Your task to perform on an android device: Show the shopping cart on walmart. Search for "apple airpods" on walmart, select the first entry, add it to the cart, then select checkout. Image 0: 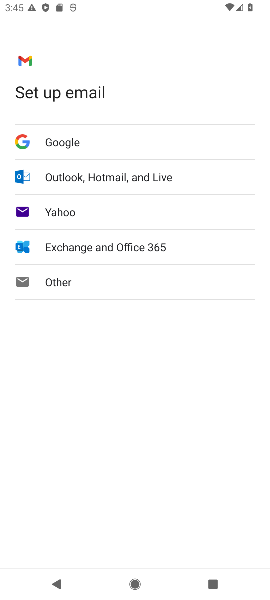
Step 0: press home button
Your task to perform on an android device: Show the shopping cart on walmart. Search for "apple airpods" on walmart, select the first entry, add it to the cart, then select checkout. Image 1: 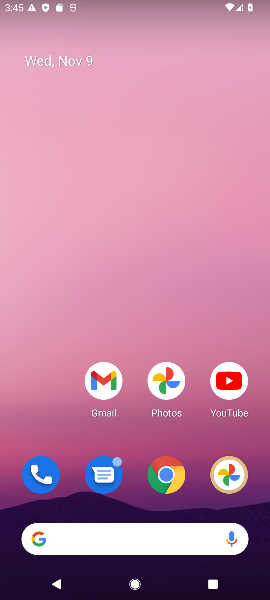
Step 1: drag from (88, 492) to (75, 96)
Your task to perform on an android device: Show the shopping cart on walmart. Search for "apple airpods" on walmart, select the first entry, add it to the cart, then select checkout. Image 2: 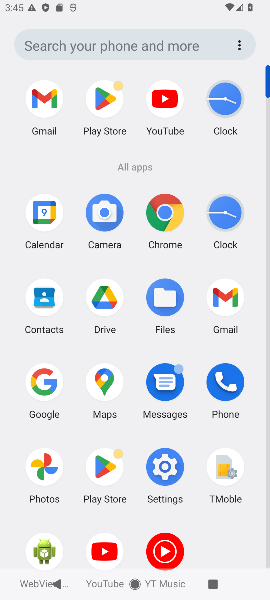
Step 2: click (158, 214)
Your task to perform on an android device: Show the shopping cart on walmart. Search for "apple airpods" on walmart, select the first entry, add it to the cart, then select checkout. Image 3: 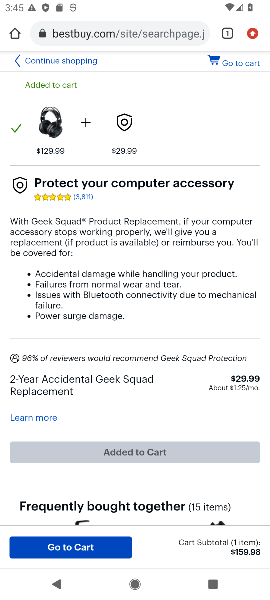
Step 3: click (121, 43)
Your task to perform on an android device: Show the shopping cart on walmart. Search for "apple airpods" on walmart, select the first entry, add it to the cart, then select checkout. Image 4: 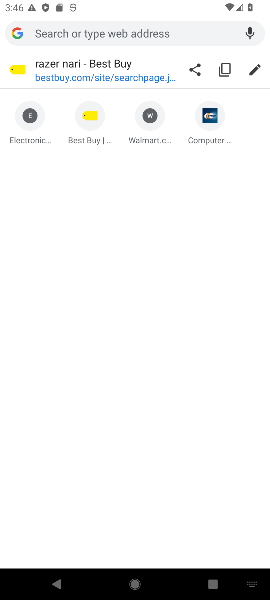
Step 4: type "walmart"
Your task to perform on an android device: Show the shopping cart on walmart. Search for "apple airpods" on walmart, select the first entry, add it to the cart, then select checkout. Image 5: 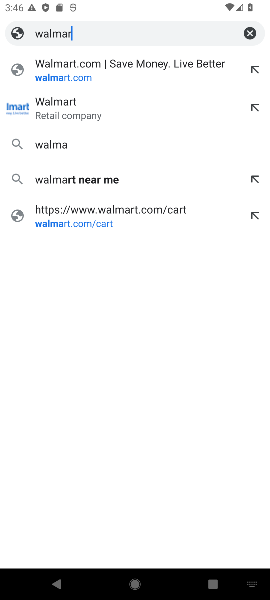
Step 5: press enter
Your task to perform on an android device: Show the shopping cart on walmart. Search for "apple airpods" on walmart, select the first entry, add it to the cart, then select checkout. Image 6: 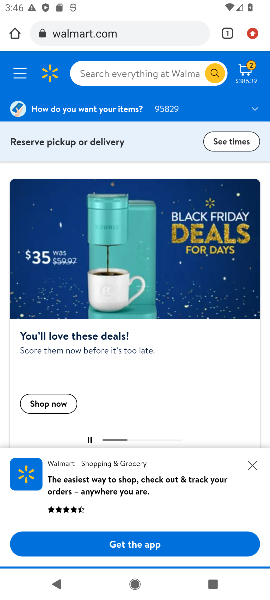
Step 6: click (247, 69)
Your task to perform on an android device: Show the shopping cart on walmart. Search for "apple airpods" on walmart, select the first entry, add it to the cart, then select checkout. Image 7: 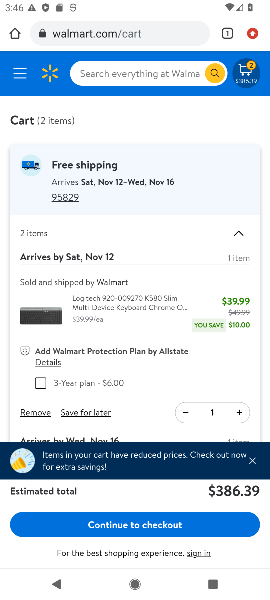
Step 7: click (126, 72)
Your task to perform on an android device: Show the shopping cart on walmart. Search for "apple airpods" on walmart, select the first entry, add it to the cart, then select checkout. Image 8: 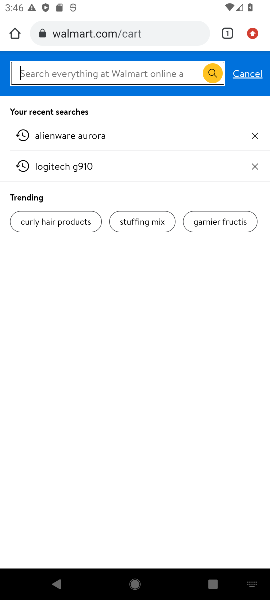
Step 8: type "apple airpods"
Your task to perform on an android device: Show the shopping cart on walmart. Search for "apple airpods" on walmart, select the first entry, add it to the cart, then select checkout. Image 9: 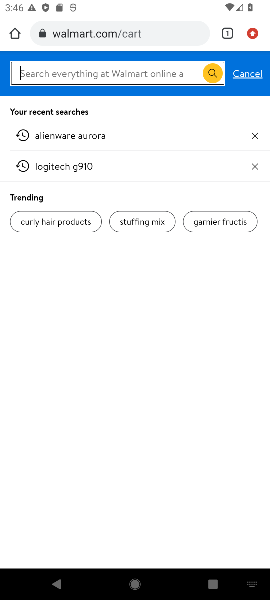
Step 9: press enter
Your task to perform on an android device: Show the shopping cart on walmart. Search for "apple airpods" on walmart, select the first entry, add it to the cart, then select checkout. Image 10: 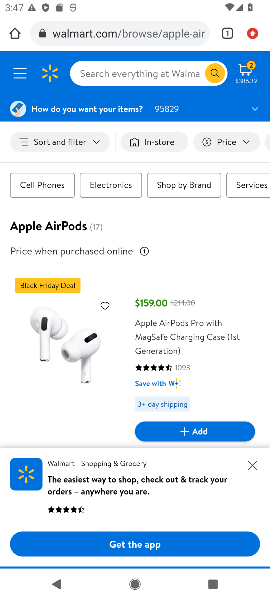
Step 10: click (206, 433)
Your task to perform on an android device: Show the shopping cart on walmart. Search for "apple airpods" on walmart, select the first entry, add it to the cart, then select checkout. Image 11: 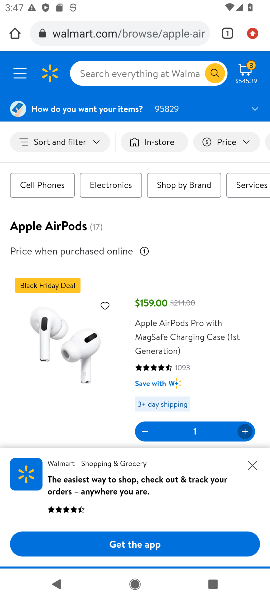
Step 11: click (253, 66)
Your task to perform on an android device: Show the shopping cart on walmart. Search for "apple airpods" on walmart, select the first entry, add it to the cart, then select checkout. Image 12: 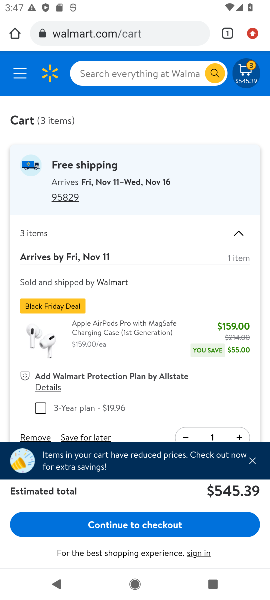
Step 12: click (125, 528)
Your task to perform on an android device: Show the shopping cart on walmart. Search for "apple airpods" on walmart, select the first entry, add it to the cart, then select checkout. Image 13: 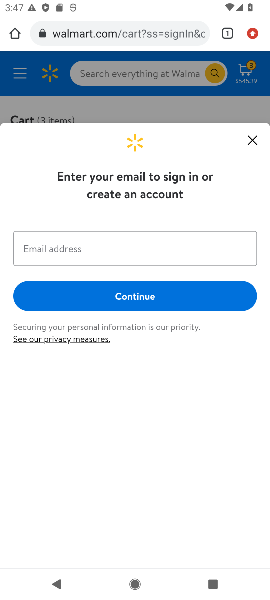
Step 13: task complete